Your task to perform on an android device: Open my contact list Image 0: 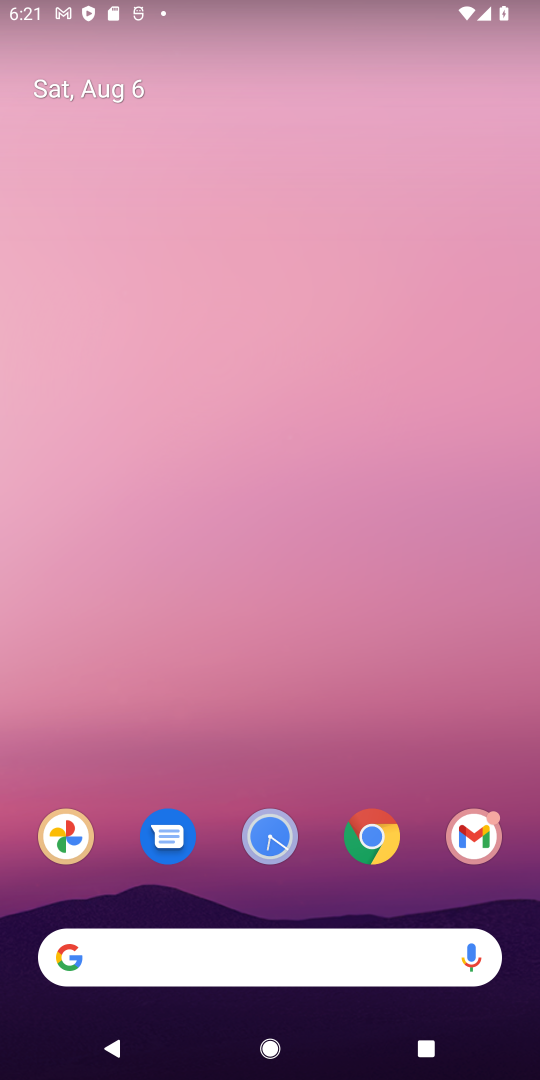
Step 0: drag from (461, 890) to (264, 52)
Your task to perform on an android device: Open my contact list Image 1: 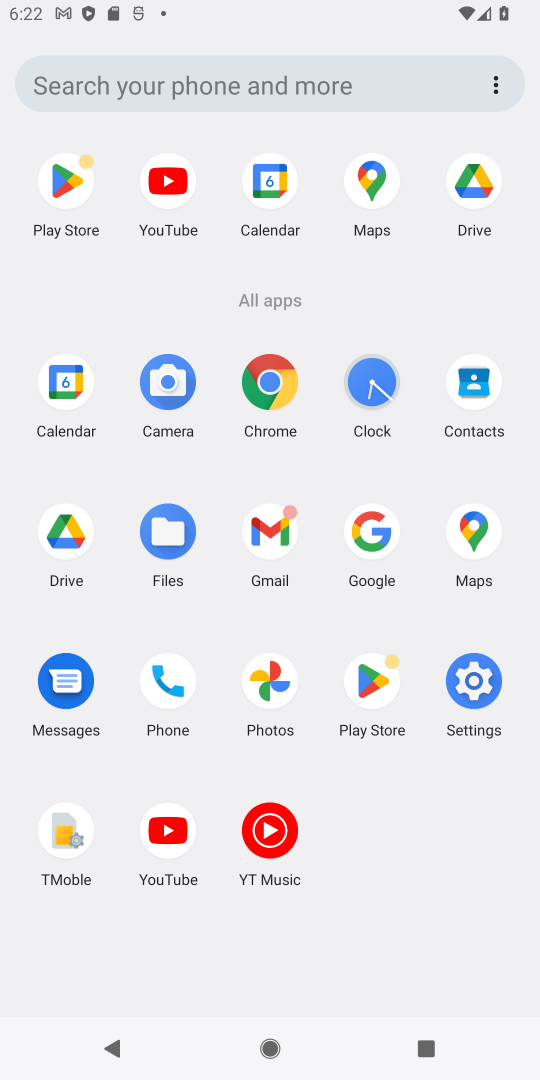
Step 1: click (470, 391)
Your task to perform on an android device: Open my contact list Image 2: 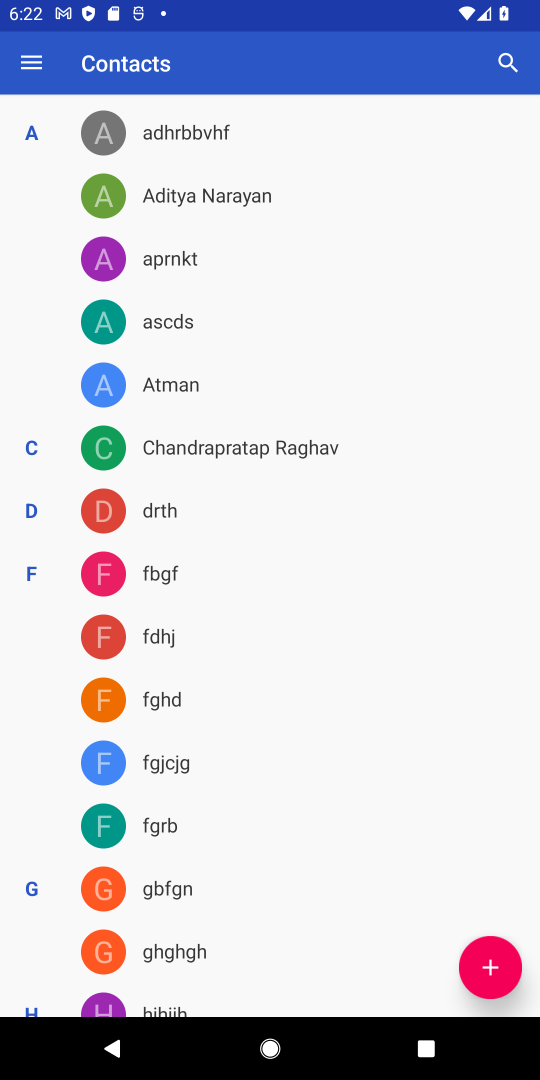
Step 2: task complete